Your task to perform on an android device: see tabs open on other devices in the chrome app Image 0: 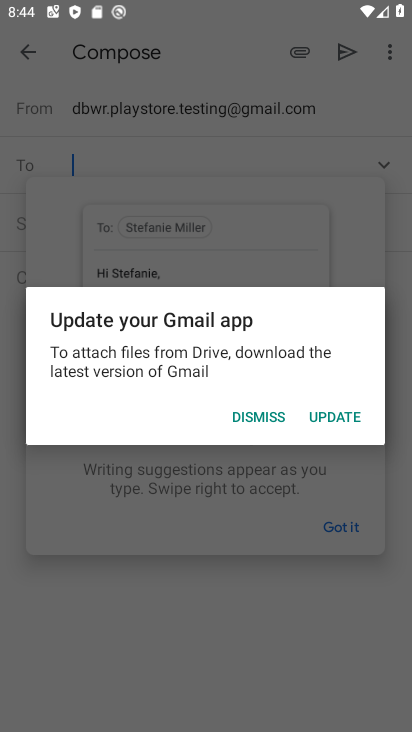
Step 0: press home button
Your task to perform on an android device: see tabs open on other devices in the chrome app Image 1: 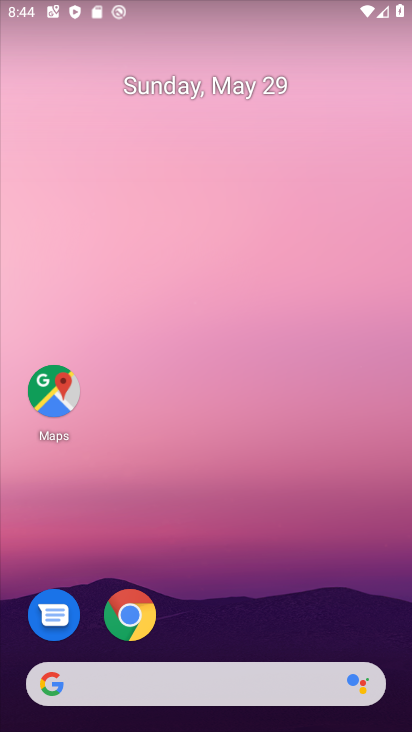
Step 1: click (124, 608)
Your task to perform on an android device: see tabs open on other devices in the chrome app Image 2: 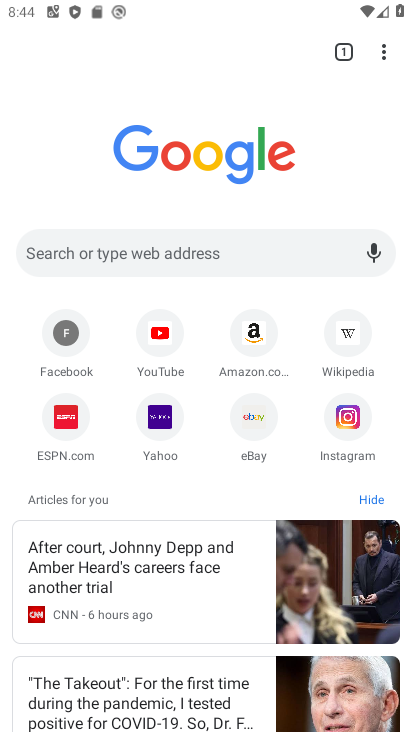
Step 2: click (371, 58)
Your task to perform on an android device: see tabs open on other devices in the chrome app Image 3: 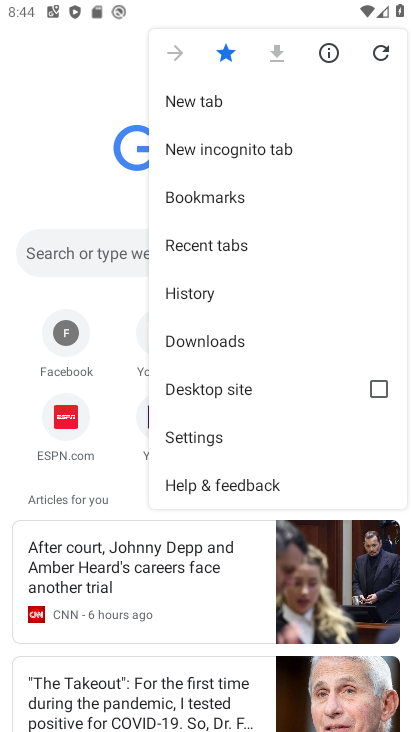
Step 3: click (216, 255)
Your task to perform on an android device: see tabs open on other devices in the chrome app Image 4: 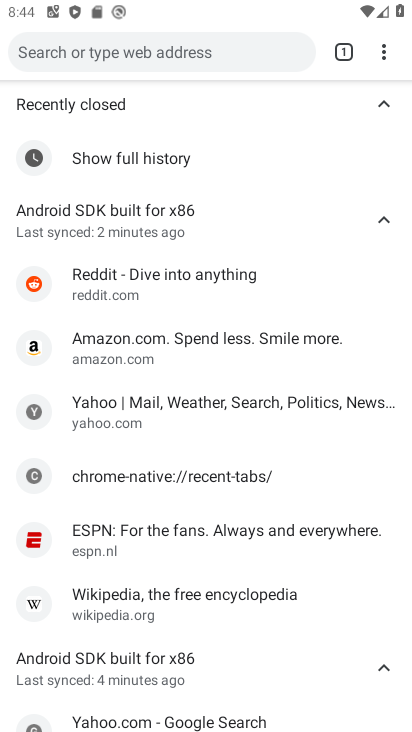
Step 4: task complete